Your task to perform on an android device: Open Youtube and go to "Your channel" Image 0: 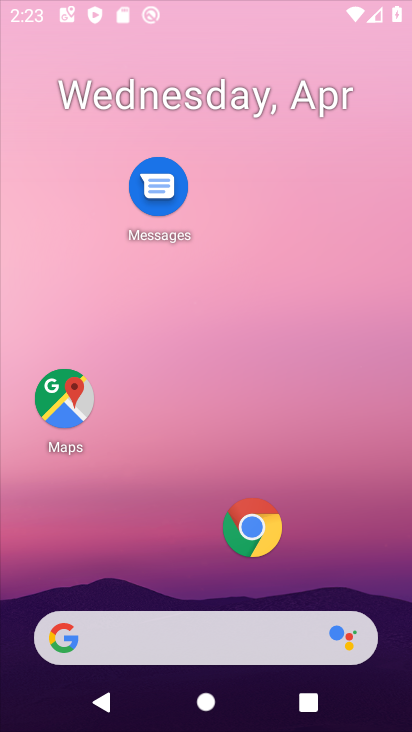
Step 0: drag from (172, 271) to (224, 118)
Your task to perform on an android device: Open Youtube and go to "Your channel" Image 1: 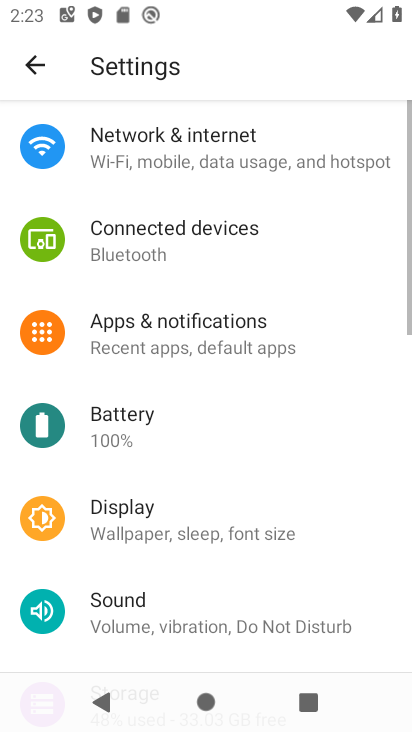
Step 1: press home button
Your task to perform on an android device: Open Youtube and go to "Your channel" Image 2: 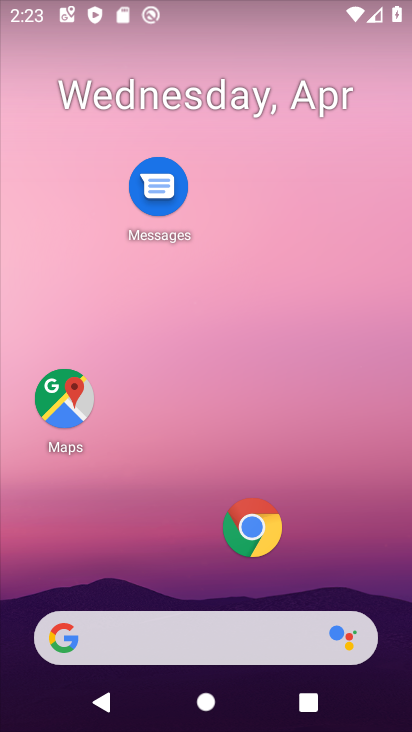
Step 2: drag from (151, 542) to (182, 108)
Your task to perform on an android device: Open Youtube and go to "Your channel" Image 3: 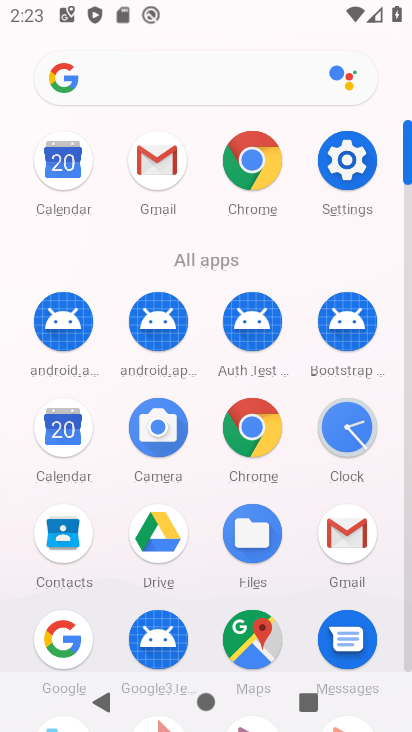
Step 3: drag from (203, 685) to (209, 413)
Your task to perform on an android device: Open Youtube and go to "Your channel" Image 4: 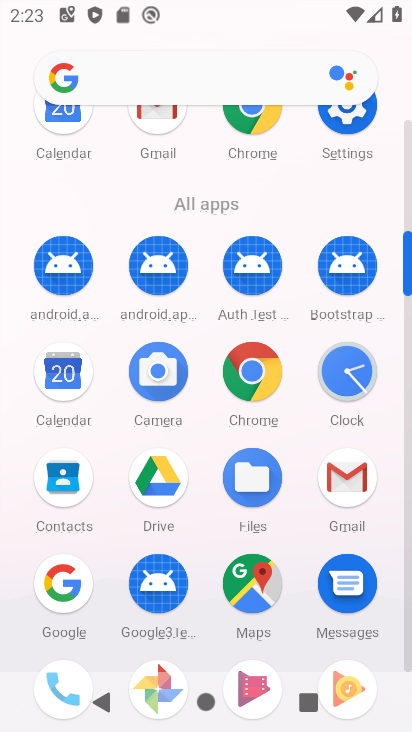
Step 4: drag from (218, 613) to (255, 297)
Your task to perform on an android device: Open Youtube and go to "Your channel" Image 5: 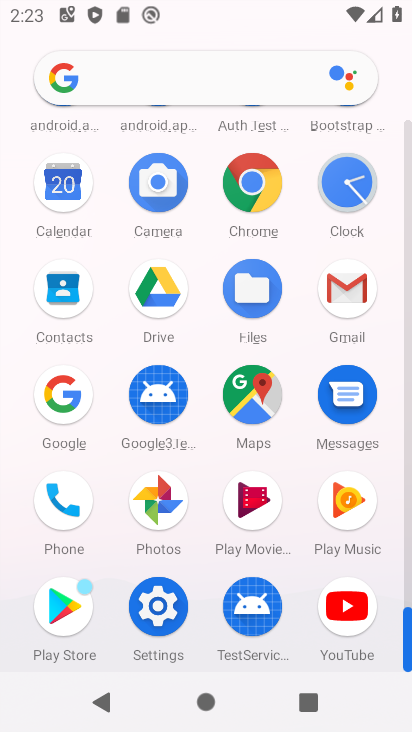
Step 5: click (345, 616)
Your task to perform on an android device: Open Youtube and go to "Your channel" Image 6: 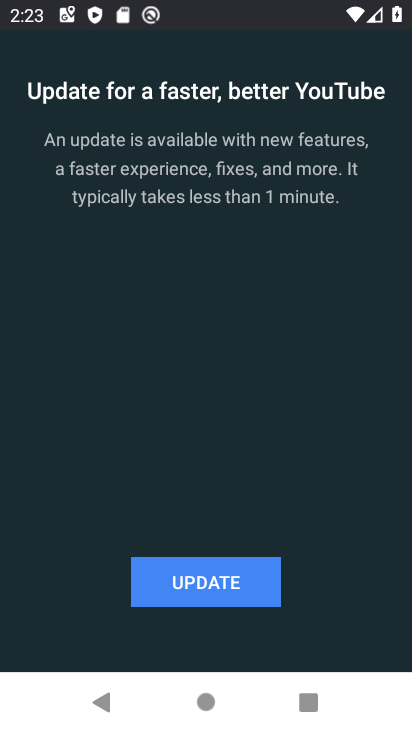
Step 6: click (211, 578)
Your task to perform on an android device: Open Youtube and go to "Your channel" Image 7: 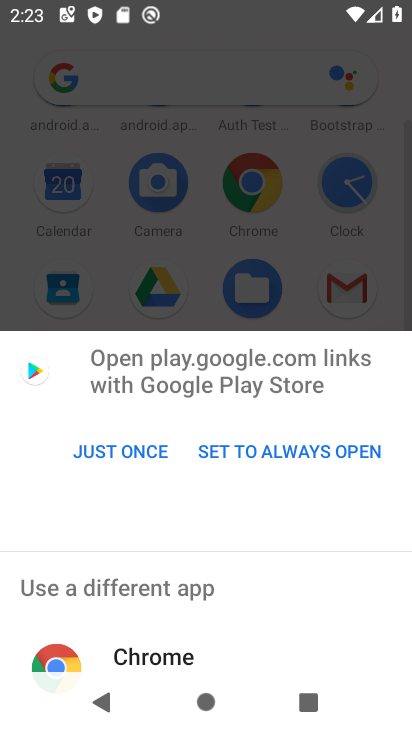
Step 7: click (140, 445)
Your task to perform on an android device: Open Youtube and go to "Your channel" Image 8: 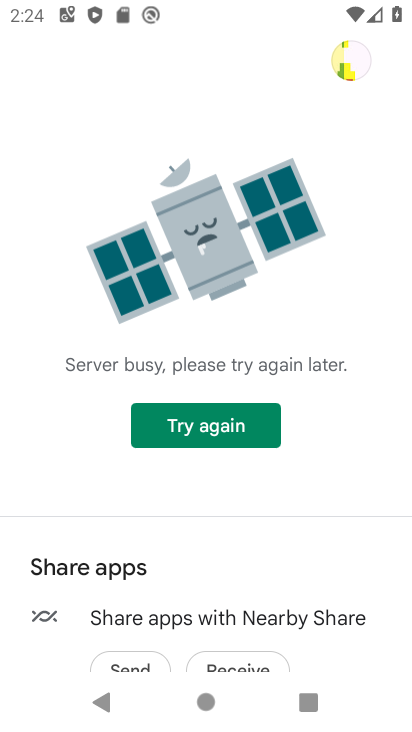
Step 8: task complete